Your task to perform on an android device: Open calendar and show me the fourth week of next month Image 0: 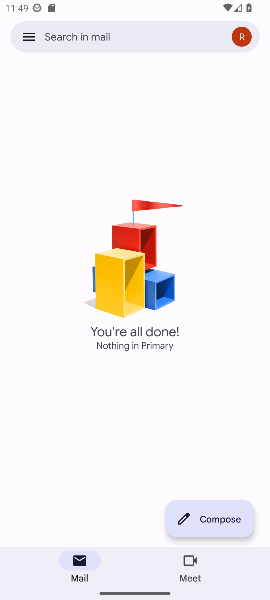
Step 0: press back button
Your task to perform on an android device: Open calendar and show me the fourth week of next month Image 1: 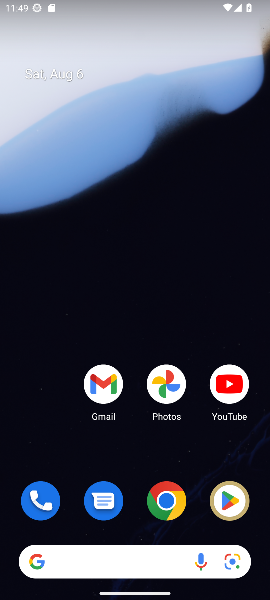
Step 1: drag from (139, 447) to (154, 214)
Your task to perform on an android device: Open calendar and show me the fourth week of next month Image 2: 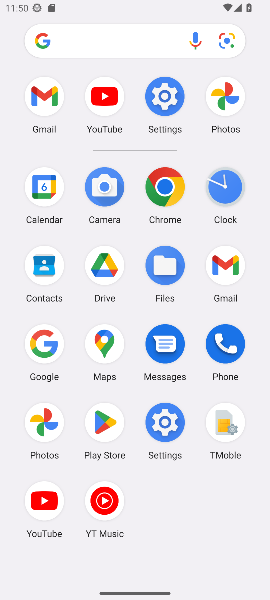
Step 2: click (53, 213)
Your task to perform on an android device: Open calendar and show me the fourth week of next month Image 3: 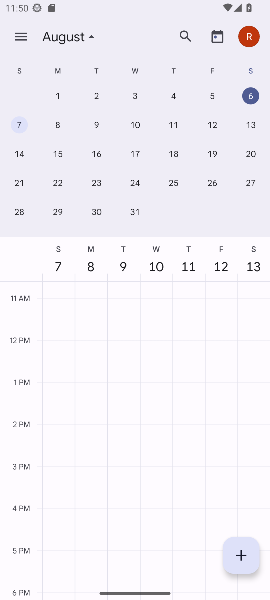
Step 3: drag from (250, 149) to (0, 119)
Your task to perform on an android device: Open calendar and show me the fourth week of next month Image 4: 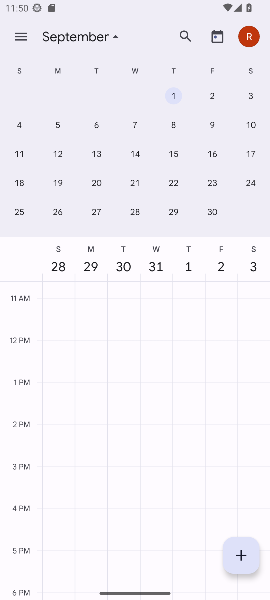
Step 4: click (16, 179)
Your task to perform on an android device: Open calendar and show me the fourth week of next month Image 5: 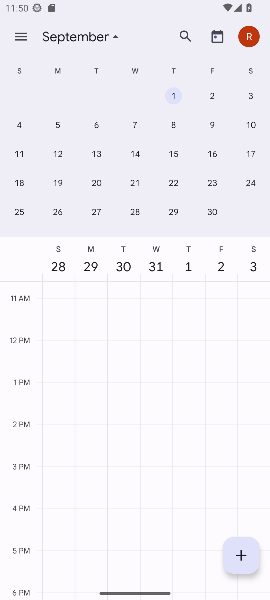
Step 5: click (16, 179)
Your task to perform on an android device: Open calendar and show me the fourth week of next month Image 6: 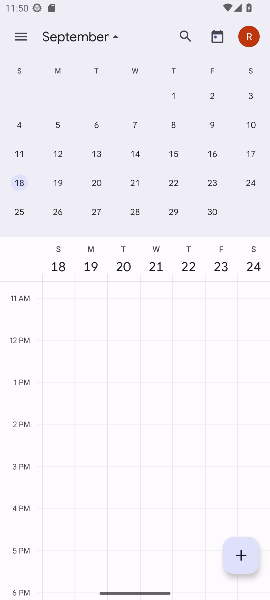
Step 6: task complete